Your task to perform on an android device: When is my next meeting? Image 0: 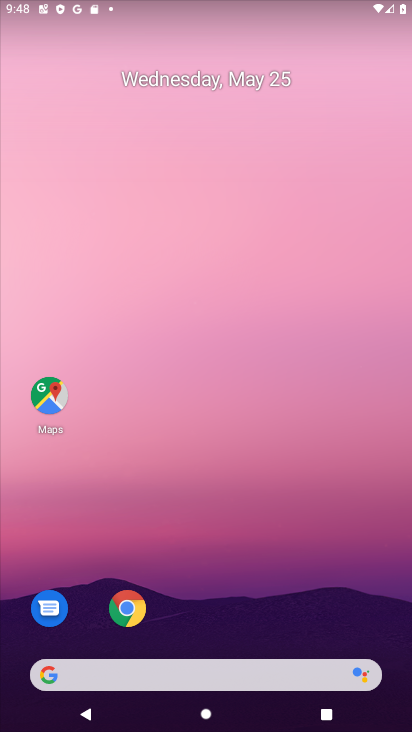
Step 0: drag from (290, 594) to (234, 8)
Your task to perform on an android device: When is my next meeting? Image 1: 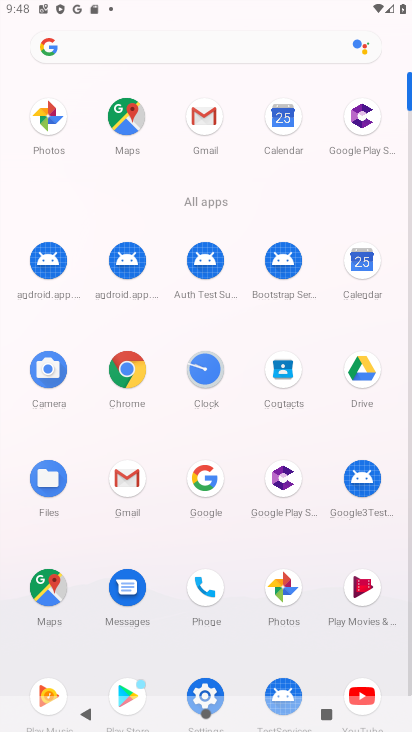
Step 1: click (279, 125)
Your task to perform on an android device: When is my next meeting? Image 2: 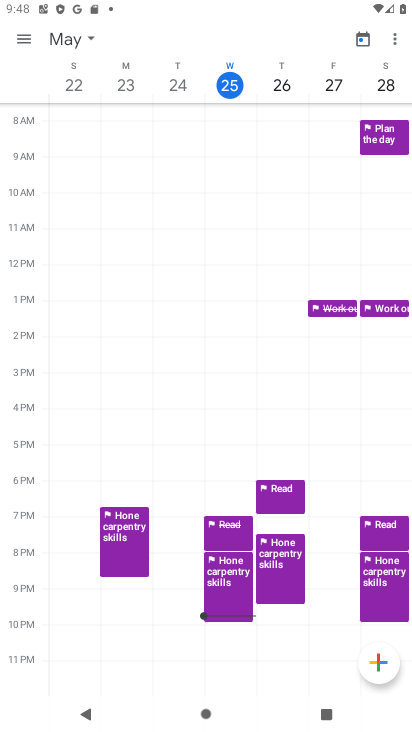
Step 2: click (19, 37)
Your task to perform on an android device: When is my next meeting? Image 3: 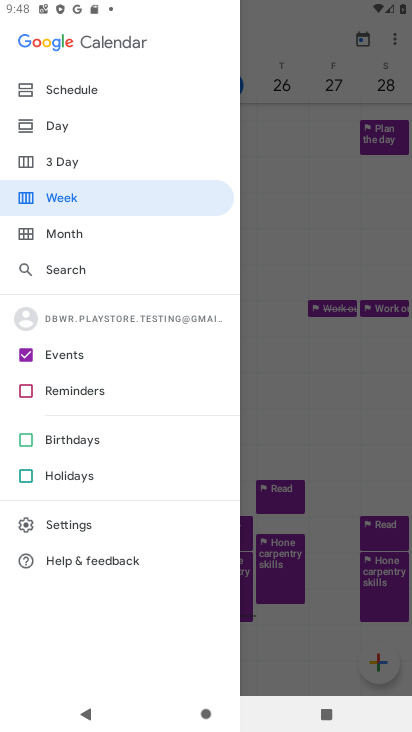
Step 3: click (36, 78)
Your task to perform on an android device: When is my next meeting? Image 4: 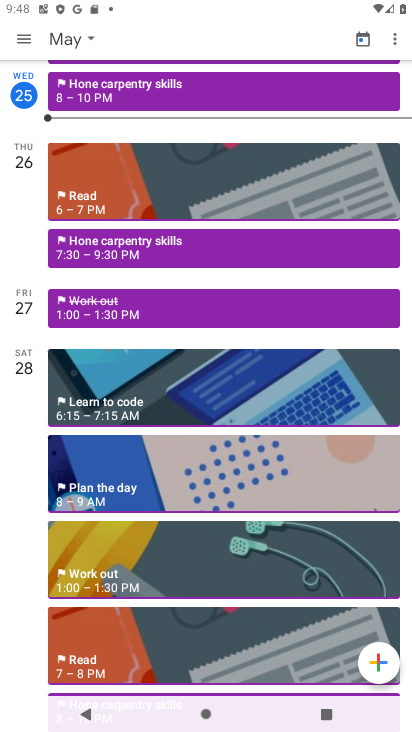
Step 4: drag from (235, 526) to (205, 100)
Your task to perform on an android device: When is my next meeting? Image 5: 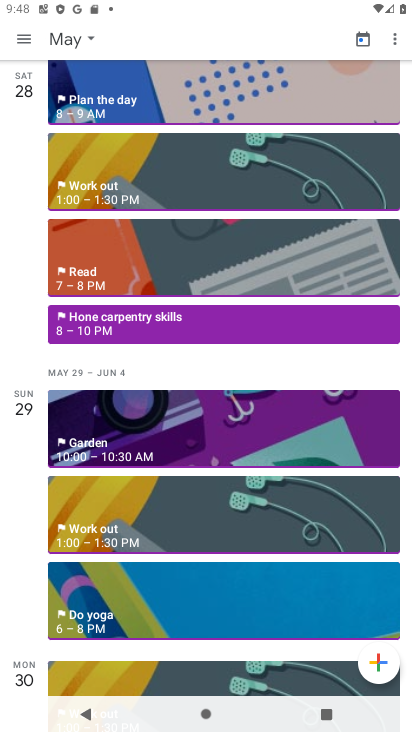
Step 5: drag from (212, 390) to (175, 111)
Your task to perform on an android device: When is my next meeting? Image 6: 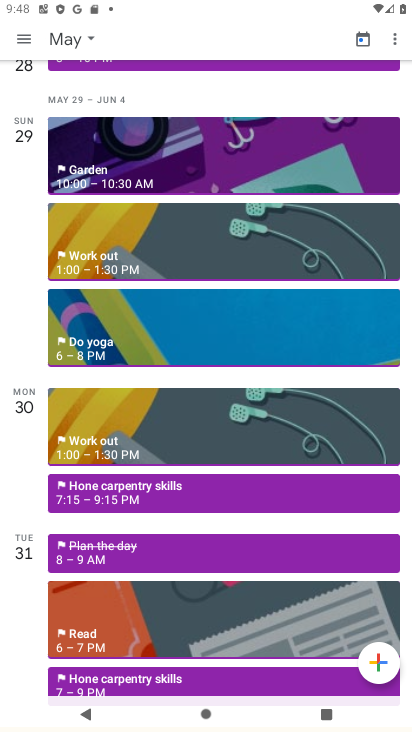
Step 6: drag from (206, 508) to (149, 106)
Your task to perform on an android device: When is my next meeting? Image 7: 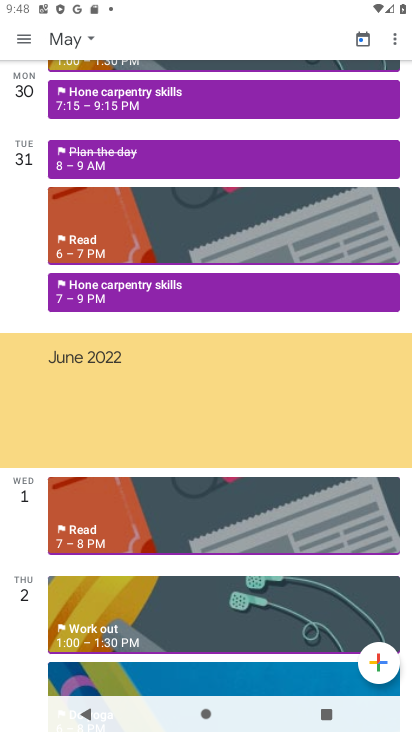
Step 7: drag from (189, 485) to (152, 141)
Your task to perform on an android device: When is my next meeting? Image 8: 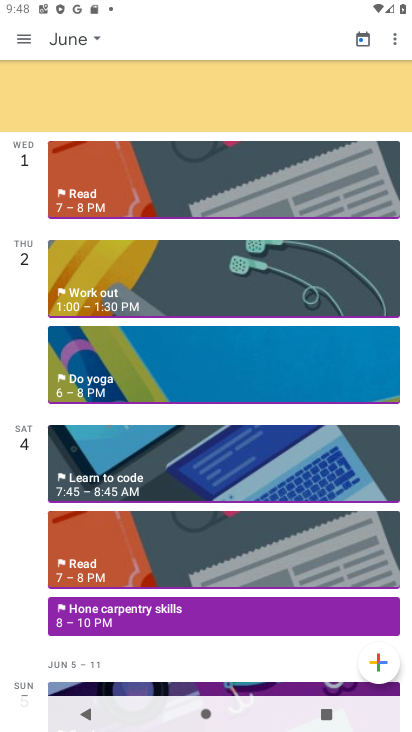
Step 8: drag from (197, 482) to (156, 153)
Your task to perform on an android device: When is my next meeting? Image 9: 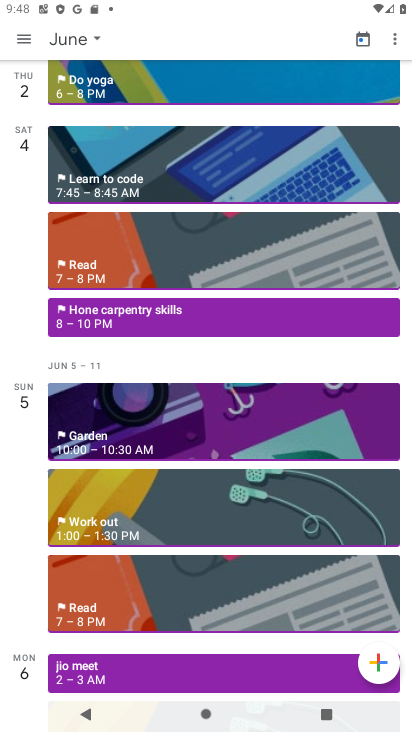
Step 9: drag from (199, 489) to (161, 238)
Your task to perform on an android device: When is my next meeting? Image 10: 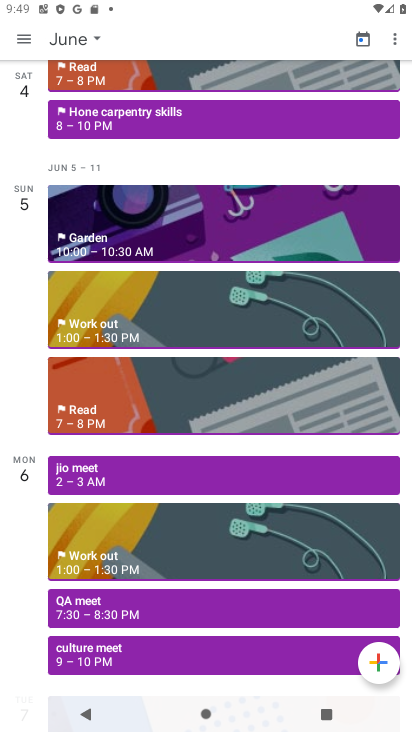
Step 10: click (115, 479)
Your task to perform on an android device: When is my next meeting? Image 11: 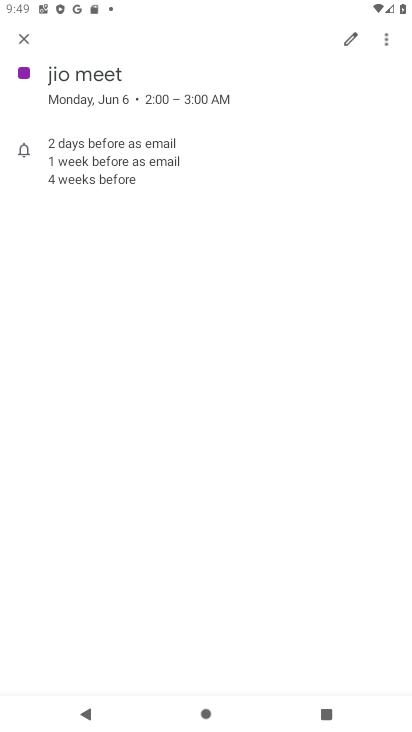
Step 11: task complete